Your task to perform on an android device: show emergency info Image 0: 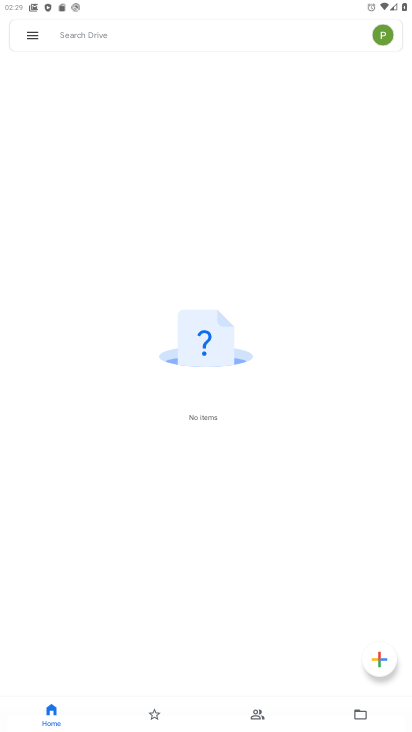
Step 0: press home button
Your task to perform on an android device: show emergency info Image 1: 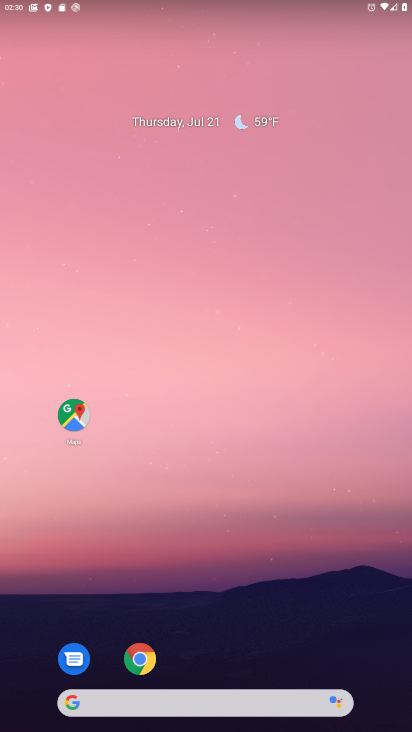
Step 1: drag from (276, 616) to (250, 133)
Your task to perform on an android device: show emergency info Image 2: 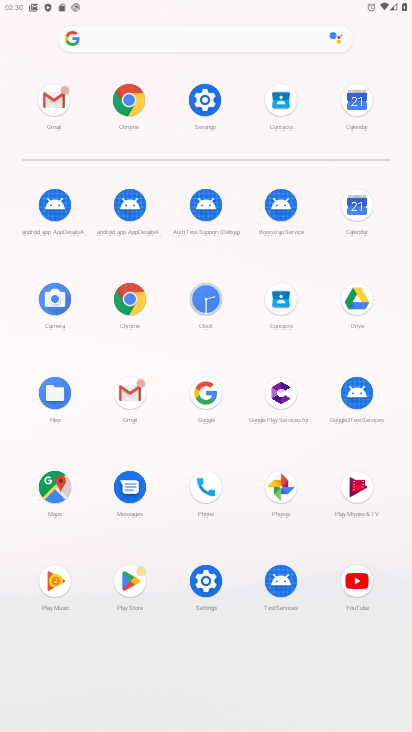
Step 2: click (203, 104)
Your task to perform on an android device: show emergency info Image 3: 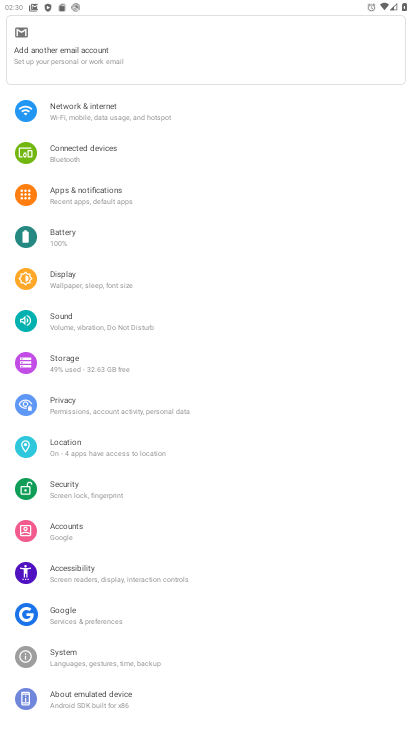
Step 3: click (111, 691)
Your task to perform on an android device: show emergency info Image 4: 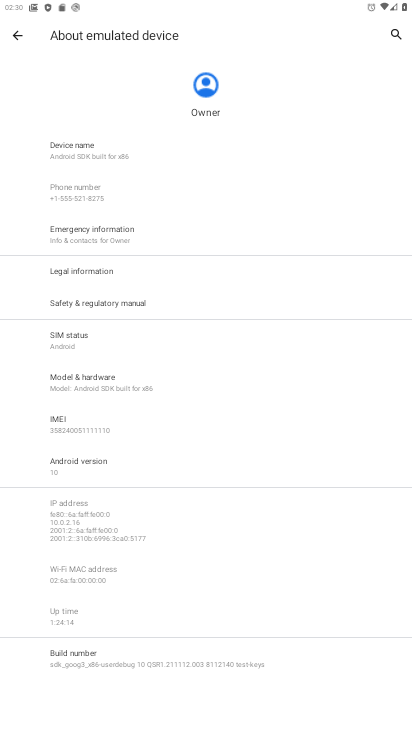
Step 4: click (122, 225)
Your task to perform on an android device: show emergency info Image 5: 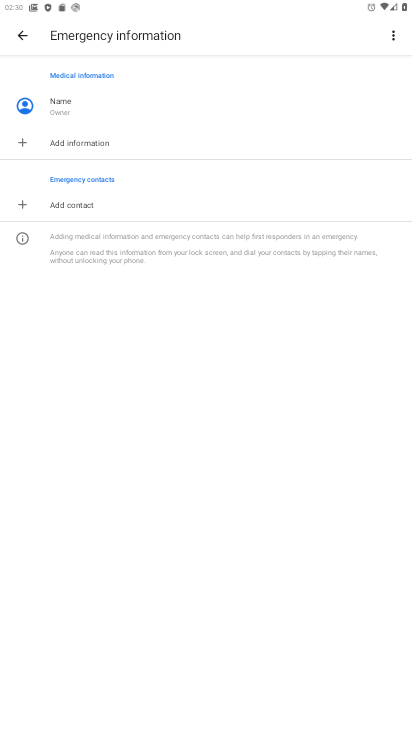
Step 5: task complete